Your task to perform on an android device: check storage Image 0: 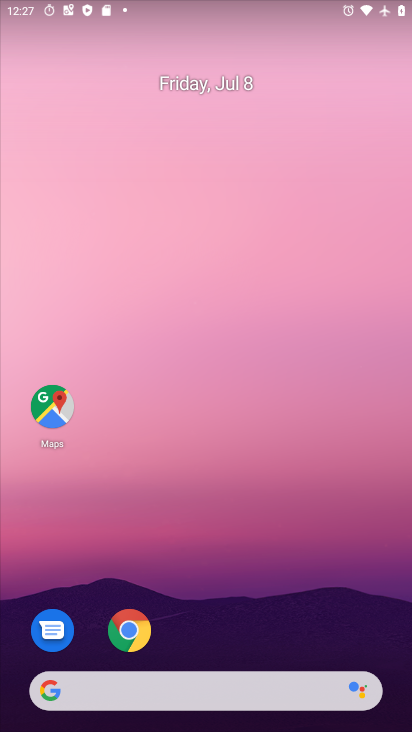
Step 0: drag from (238, 617) to (206, 131)
Your task to perform on an android device: check storage Image 1: 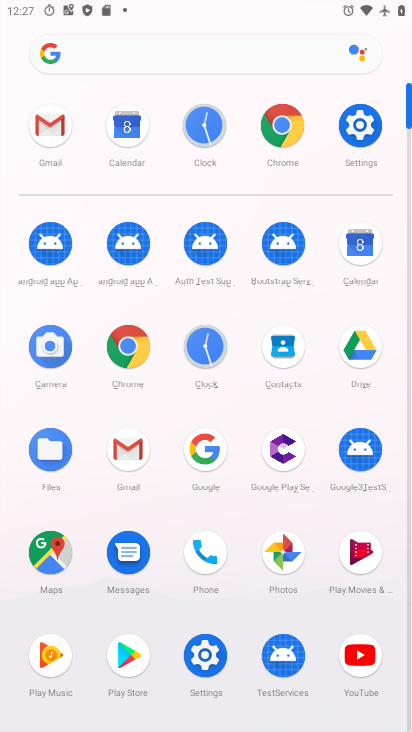
Step 1: click (337, 141)
Your task to perform on an android device: check storage Image 2: 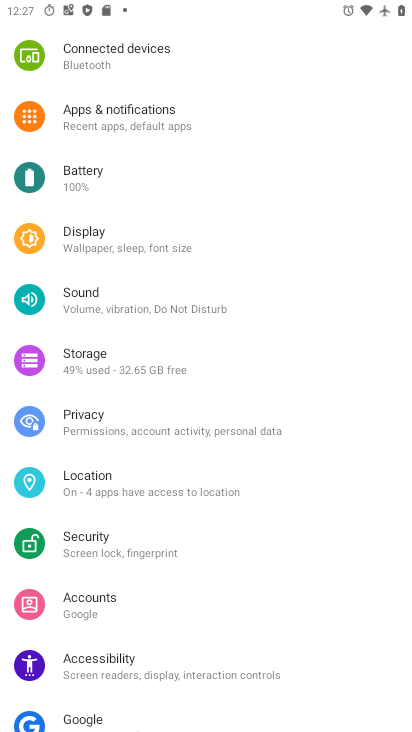
Step 2: click (126, 365)
Your task to perform on an android device: check storage Image 3: 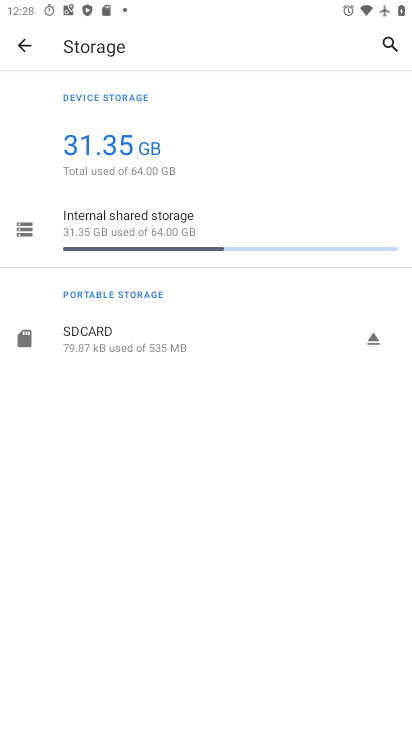
Step 3: click (158, 226)
Your task to perform on an android device: check storage Image 4: 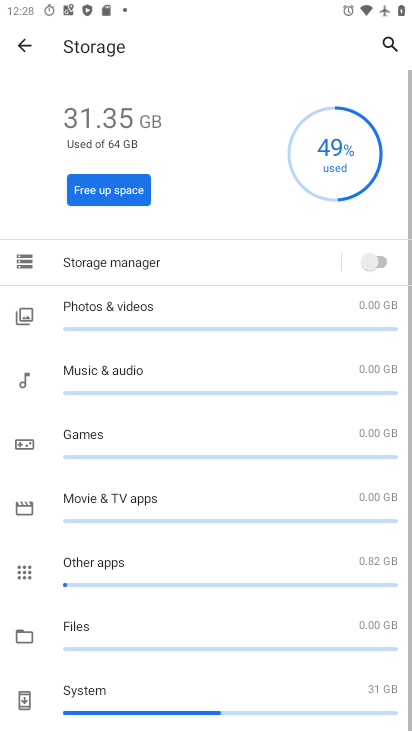
Step 4: task complete